Your task to perform on an android device: find which apps use the phone's location Image 0: 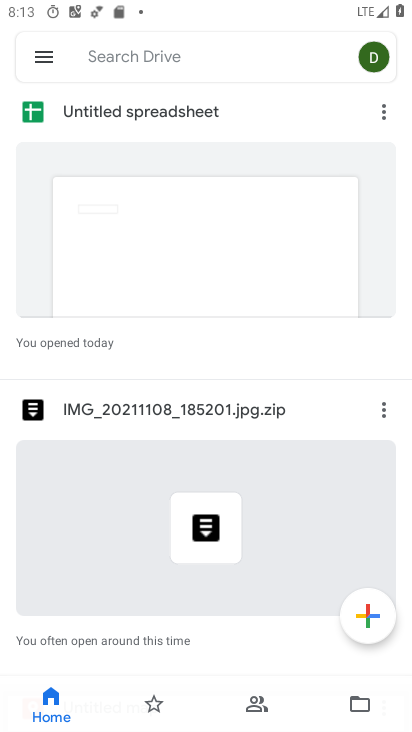
Step 0: press home button
Your task to perform on an android device: find which apps use the phone's location Image 1: 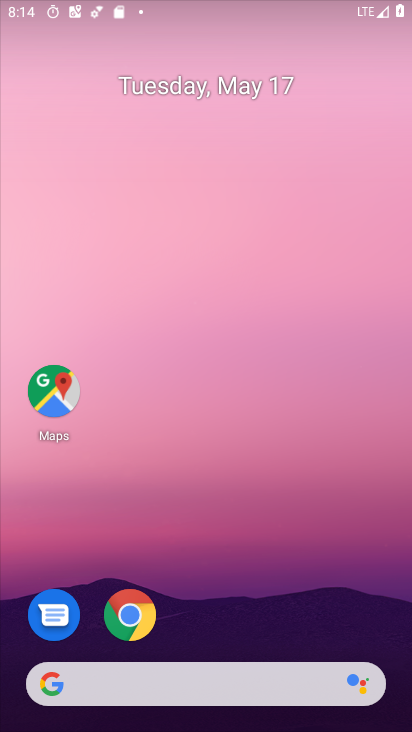
Step 1: drag from (238, 608) to (245, 204)
Your task to perform on an android device: find which apps use the phone's location Image 2: 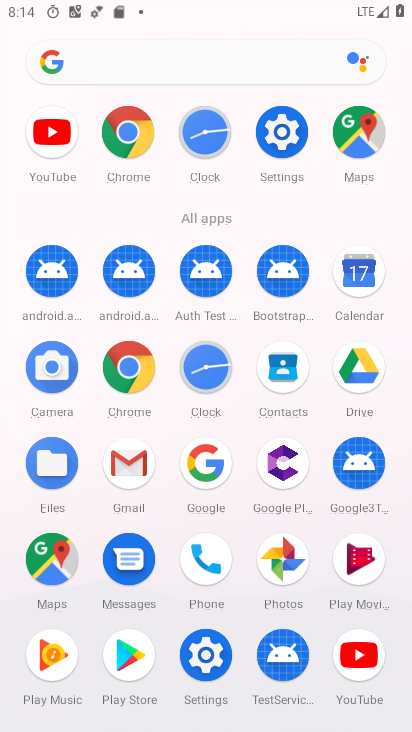
Step 2: click (284, 145)
Your task to perform on an android device: find which apps use the phone's location Image 3: 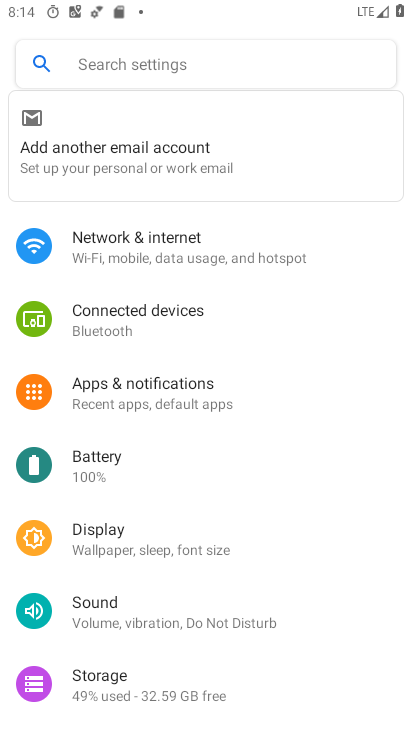
Step 3: drag from (193, 602) to (197, 333)
Your task to perform on an android device: find which apps use the phone's location Image 4: 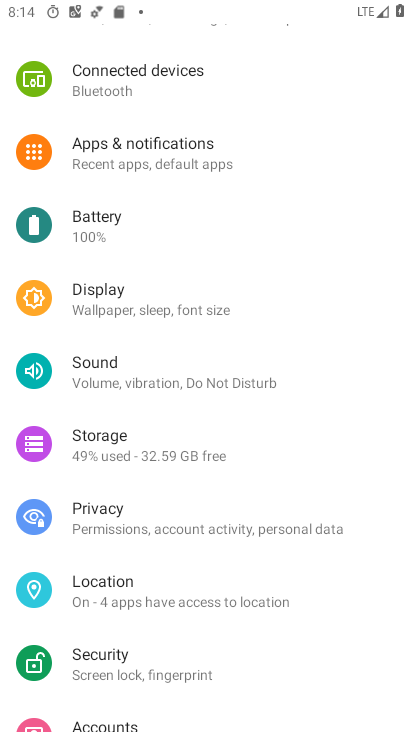
Step 4: click (200, 594)
Your task to perform on an android device: find which apps use the phone's location Image 5: 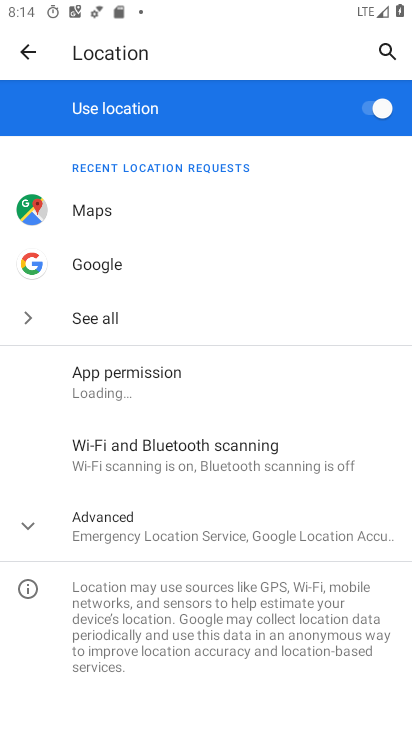
Step 5: click (120, 260)
Your task to perform on an android device: find which apps use the phone's location Image 6: 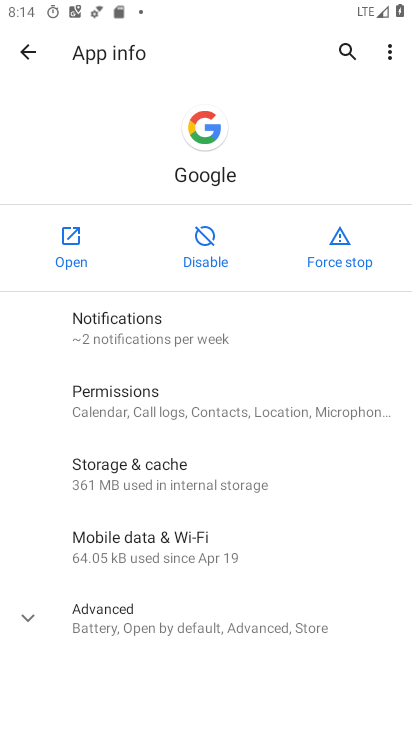
Step 6: click (126, 409)
Your task to perform on an android device: find which apps use the phone's location Image 7: 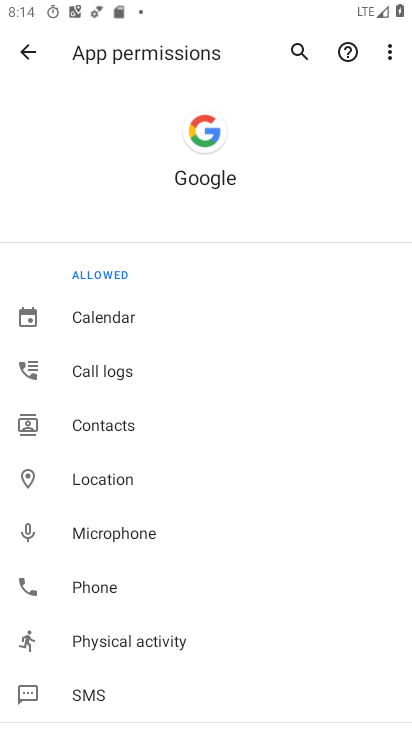
Step 7: click (115, 487)
Your task to perform on an android device: find which apps use the phone's location Image 8: 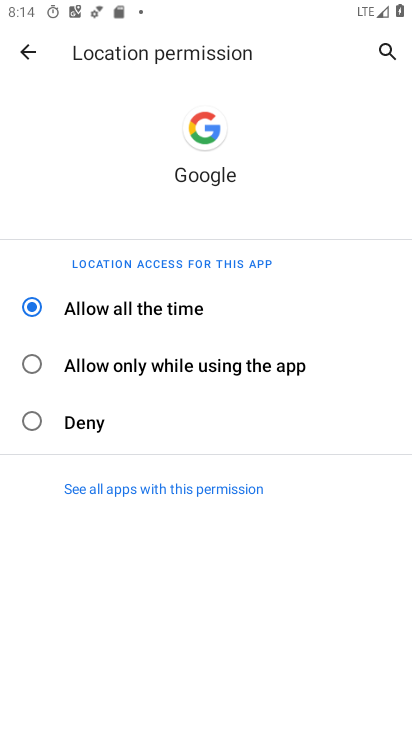
Step 8: task complete